Your task to perform on an android device: Search for pizza restaurants on Maps Image 0: 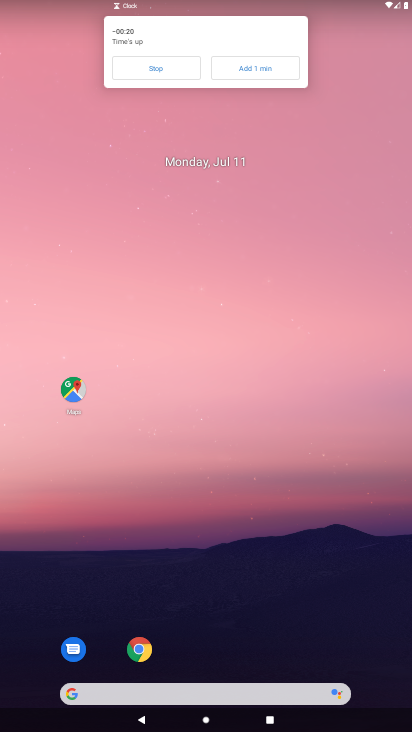
Step 0: click (77, 387)
Your task to perform on an android device: Search for pizza restaurants on Maps Image 1: 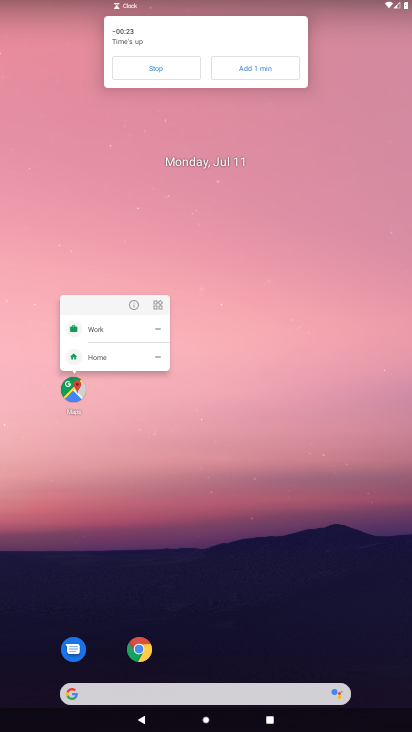
Step 1: click (77, 387)
Your task to perform on an android device: Search for pizza restaurants on Maps Image 2: 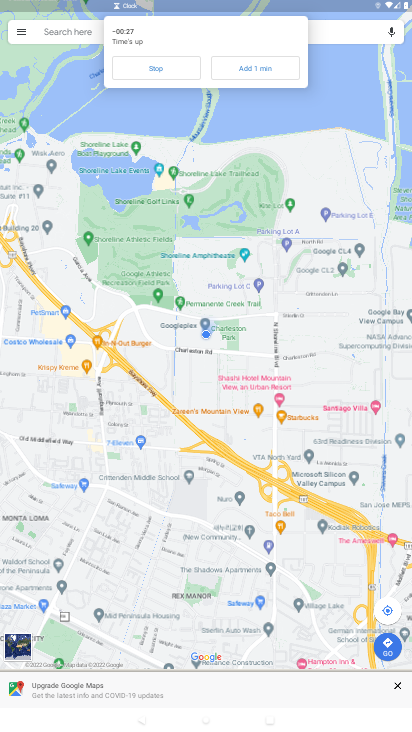
Step 2: click (163, 67)
Your task to perform on an android device: Search for pizza restaurants on Maps Image 3: 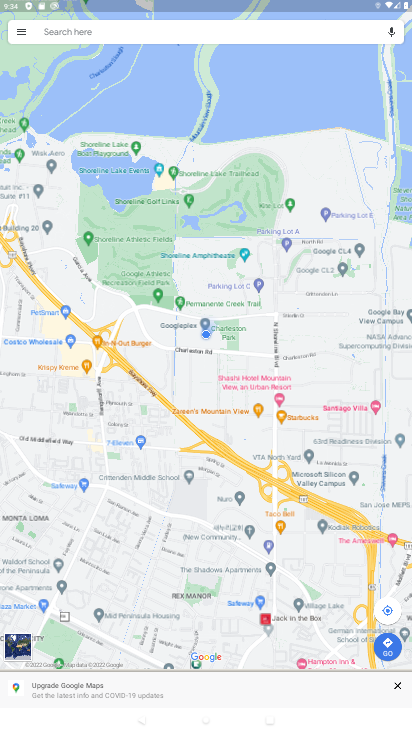
Step 3: click (68, 30)
Your task to perform on an android device: Search for pizza restaurants on Maps Image 4: 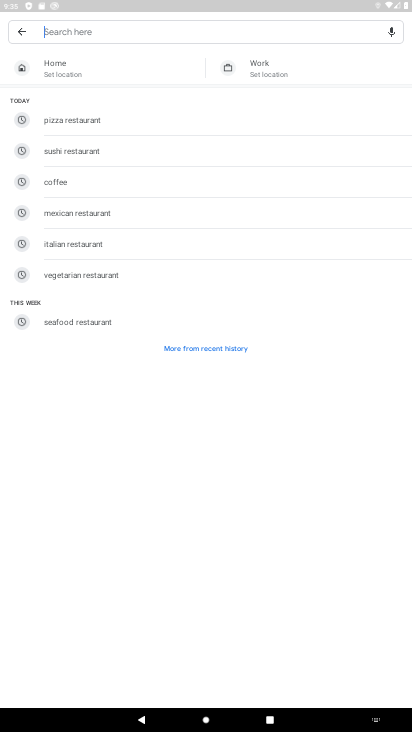
Step 4: type "pizza restaurants"
Your task to perform on an android device: Search for pizza restaurants on Maps Image 5: 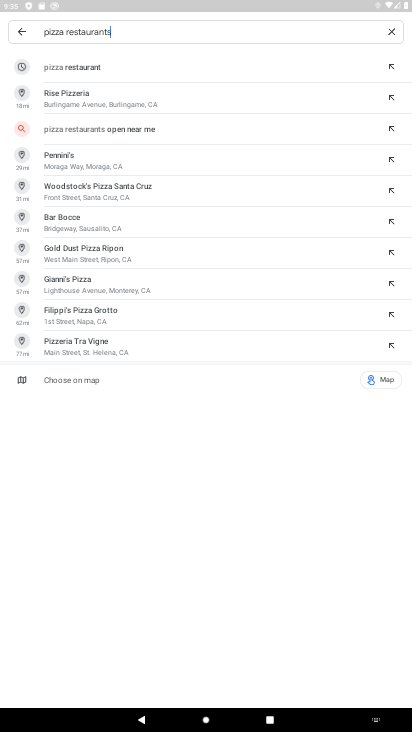
Step 5: click (116, 70)
Your task to perform on an android device: Search for pizza restaurants on Maps Image 6: 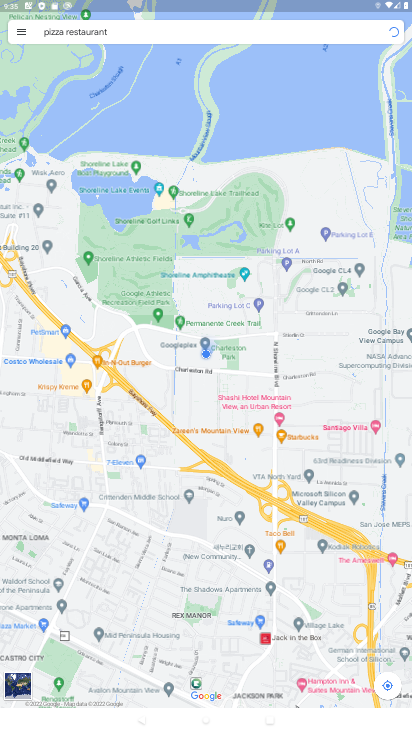
Step 6: task complete